Your task to perform on an android device: turn off notifications settings in the gmail app Image 0: 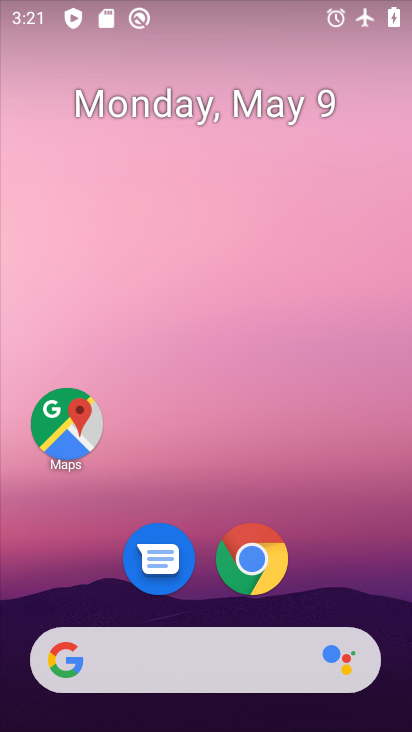
Step 0: drag from (203, 729) to (204, 191)
Your task to perform on an android device: turn off notifications settings in the gmail app Image 1: 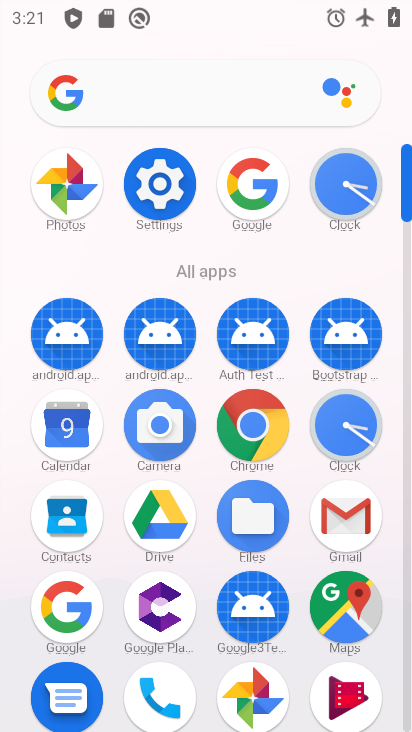
Step 1: click (344, 514)
Your task to perform on an android device: turn off notifications settings in the gmail app Image 2: 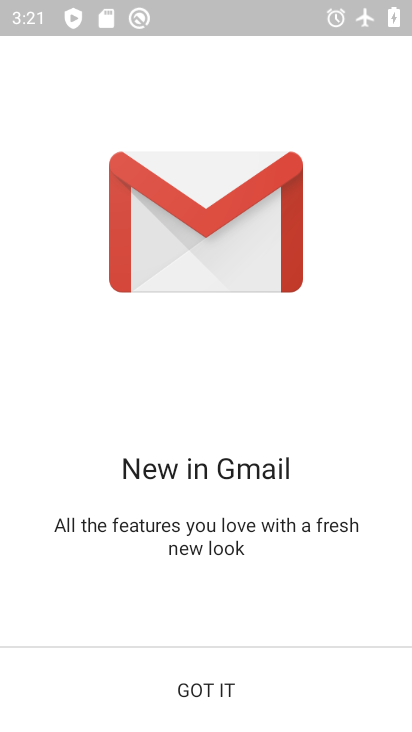
Step 2: click (224, 686)
Your task to perform on an android device: turn off notifications settings in the gmail app Image 3: 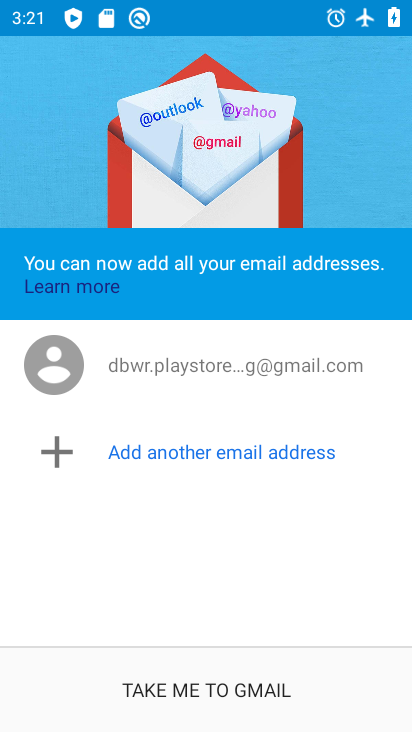
Step 3: click (179, 689)
Your task to perform on an android device: turn off notifications settings in the gmail app Image 4: 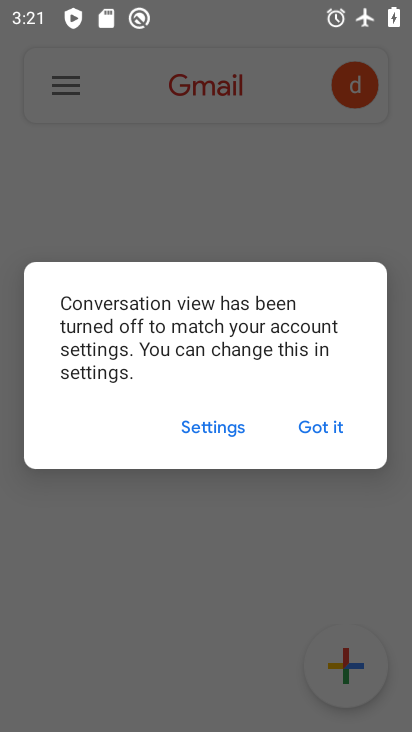
Step 4: click (321, 415)
Your task to perform on an android device: turn off notifications settings in the gmail app Image 5: 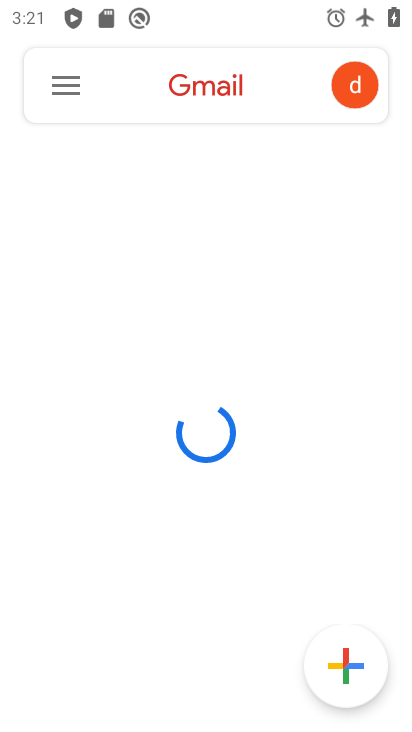
Step 5: click (67, 84)
Your task to perform on an android device: turn off notifications settings in the gmail app Image 6: 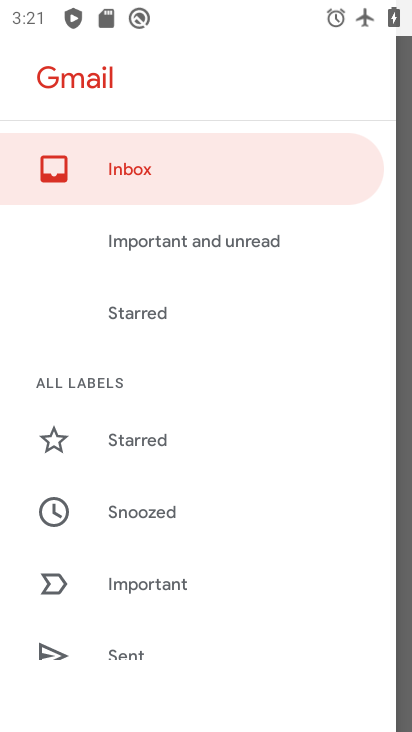
Step 6: drag from (194, 621) to (188, 491)
Your task to perform on an android device: turn off notifications settings in the gmail app Image 7: 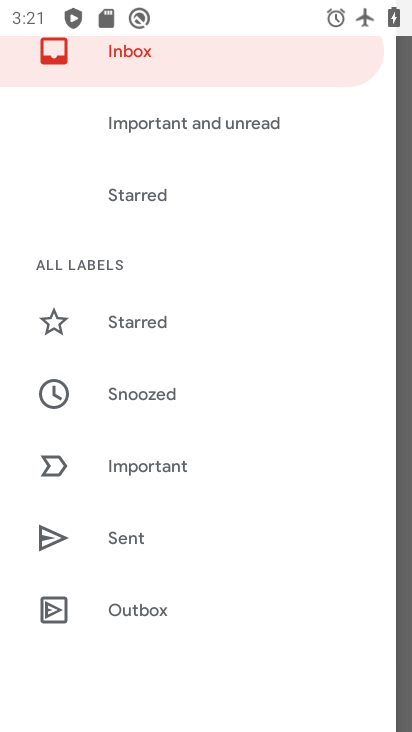
Step 7: drag from (165, 610) to (172, 367)
Your task to perform on an android device: turn off notifications settings in the gmail app Image 8: 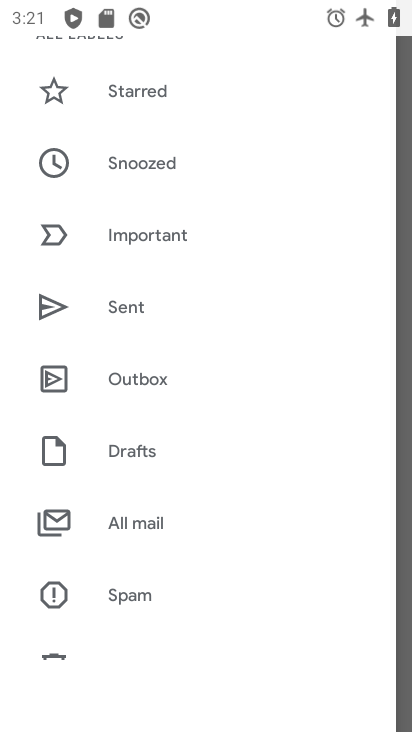
Step 8: drag from (141, 632) to (141, 377)
Your task to perform on an android device: turn off notifications settings in the gmail app Image 9: 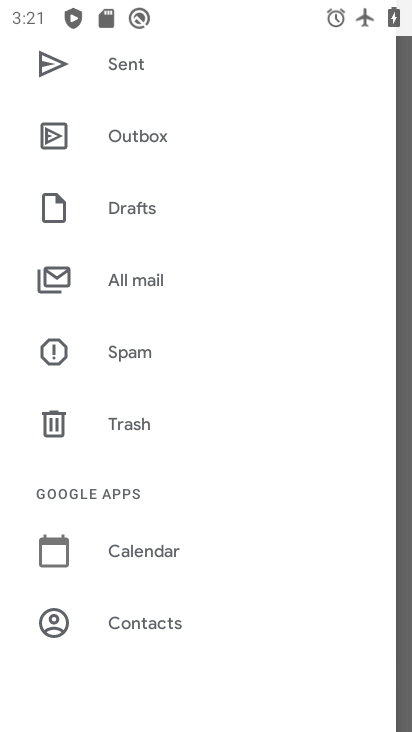
Step 9: drag from (165, 599) to (170, 213)
Your task to perform on an android device: turn off notifications settings in the gmail app Image 10: 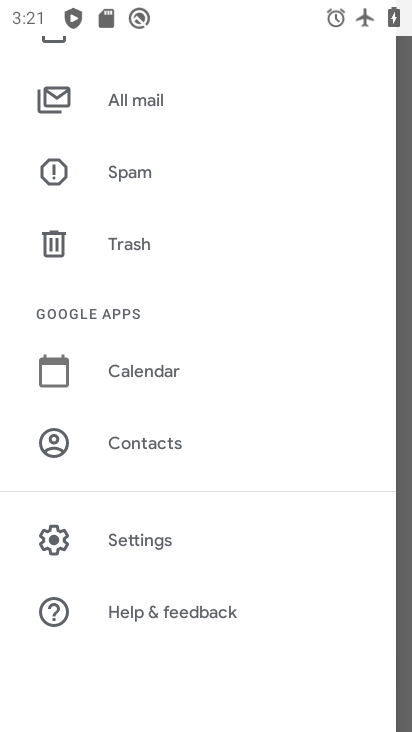
Step 10: click (136, 534)
Your task to perform on an android device: turn off notifications settings in the gmail app Image 11: 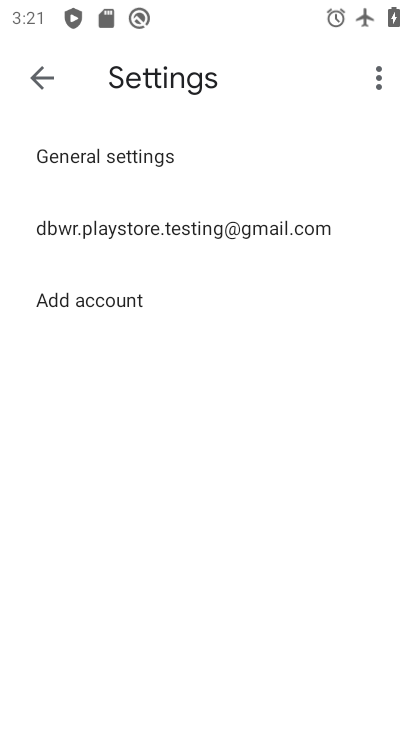
Step 11: click (167, 224)
Your task to perform on an android device: turn off notifications settings in the gmail app Image 12: 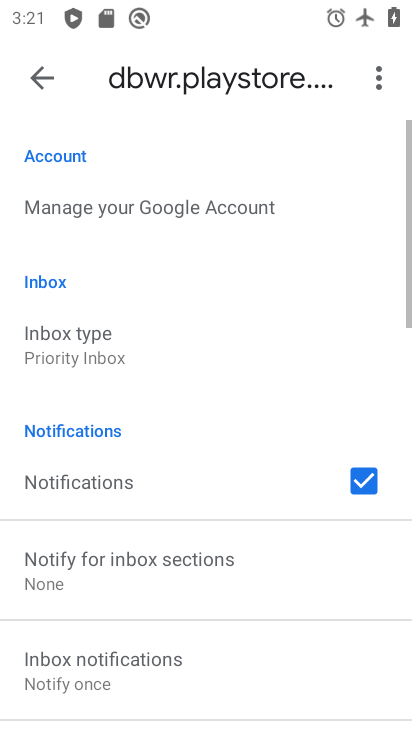
Step 12: drag from (221, 614) to (226, 398)
Your task to perform on an android device: turn off notifications settings in the gmail app Image 13: 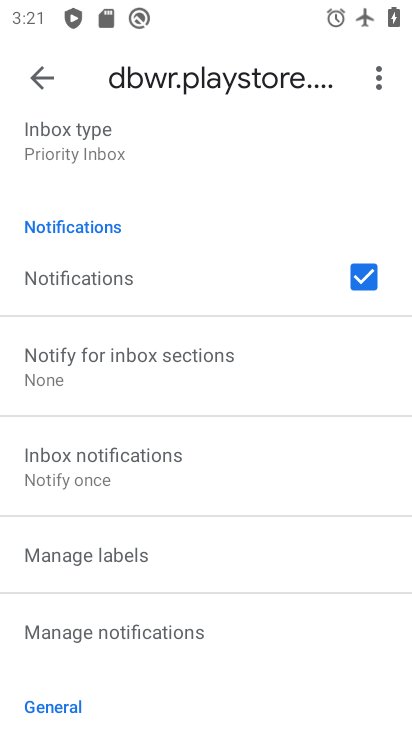
Step 13: click (367, 271)
Your task to perform on an android device: turn off notifications settings in the gmail app Image 14: 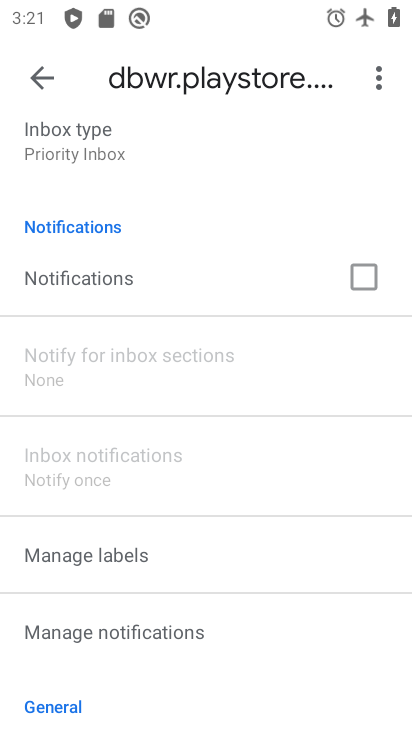
Step 14: task complete